Your task to perform on an android device: delete browsing data in the chrome app Image 0: 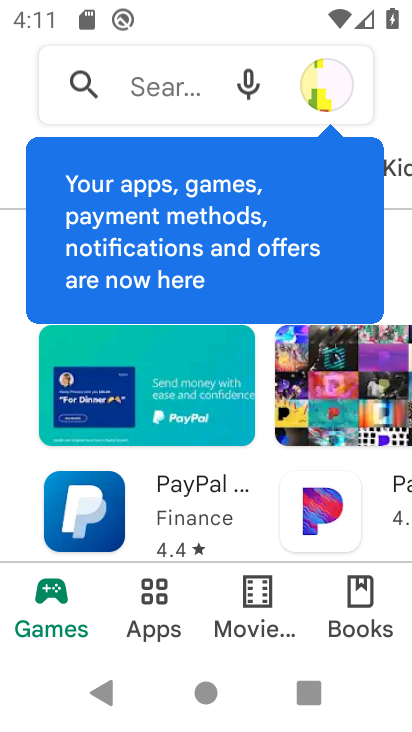
Step 0: press home button
Your task to perform on an android device: delete browsing data in the chrome app Image 1: 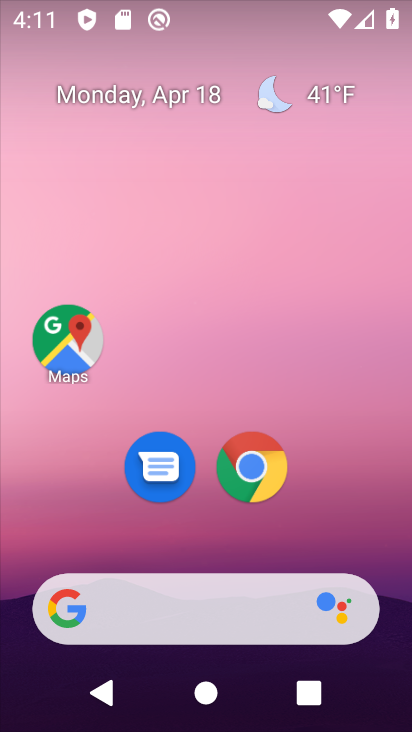
Step 1: click (256, 457)
Your task to perform on an android device: delete browsing data in the chrome app Image 2: 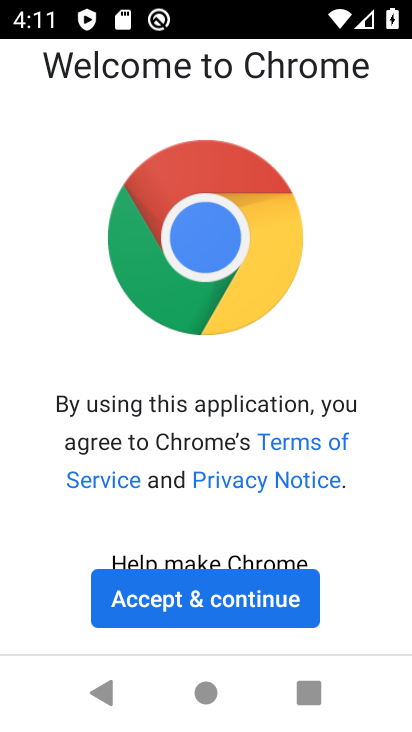
Step 2: click (292, 585)
Your task to perform on an android device: delete browsing data in the chrome app Image 3: 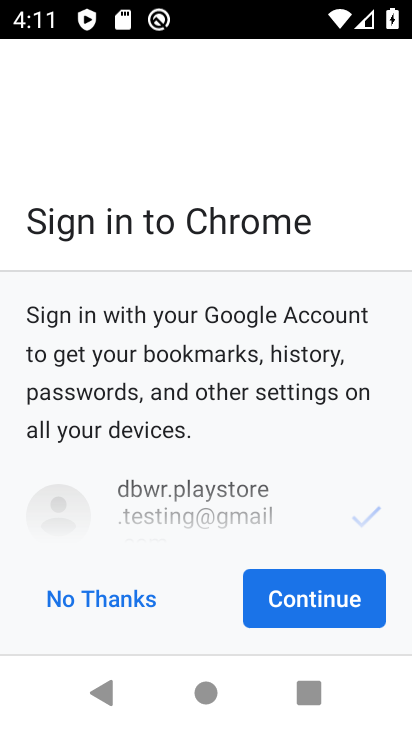
Step 3: click (351, 598)
Your task to perform on an android device: delete browsing data in the chrome app Image 4: 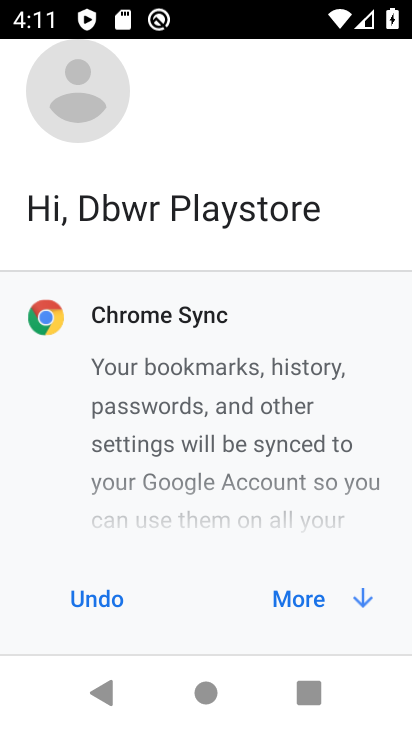
Step 4: click (304, 597)
Your task to perform on an android device: delete browsing data in the chrome app Image 5: 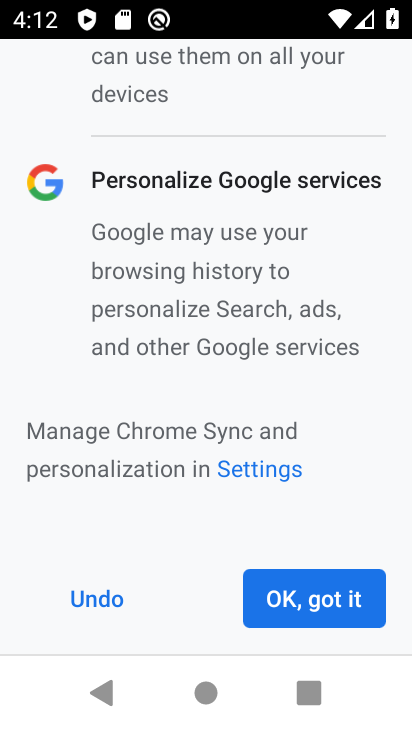
Step 5: click (325, 591)
Your task to perform on an android device: delete browsing data in the chrome app Image 6: 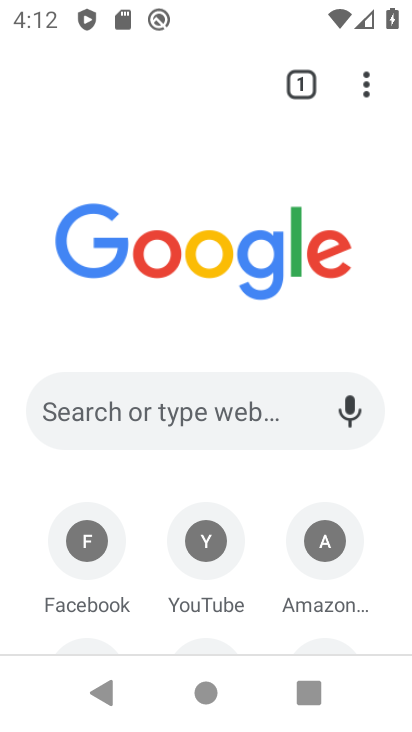
Step 6: click (363, 84)
Your task to perform on an android device: delete browsing data in the chrome app Image 7: 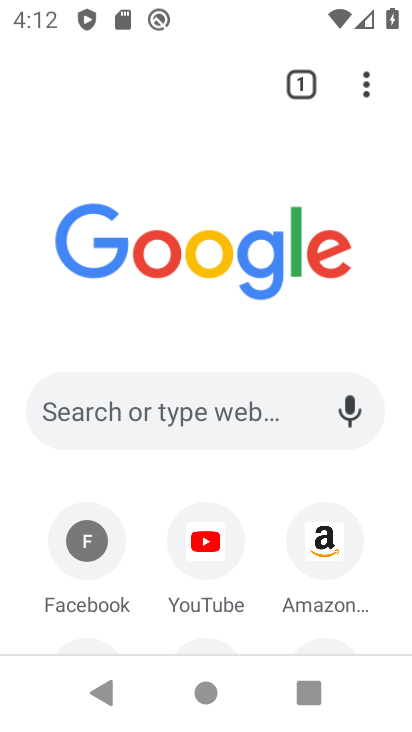
Step 7: click (366, 75)
Your task to perform on an android device: delete browsing data in the chrome app Image 8: 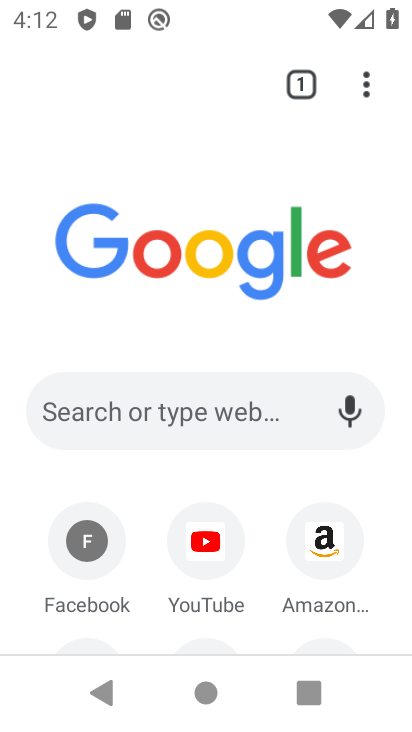
Step 8: click (366, 75)
Your task to perform on an android device: delete browsing data in the chrome app Image 9: 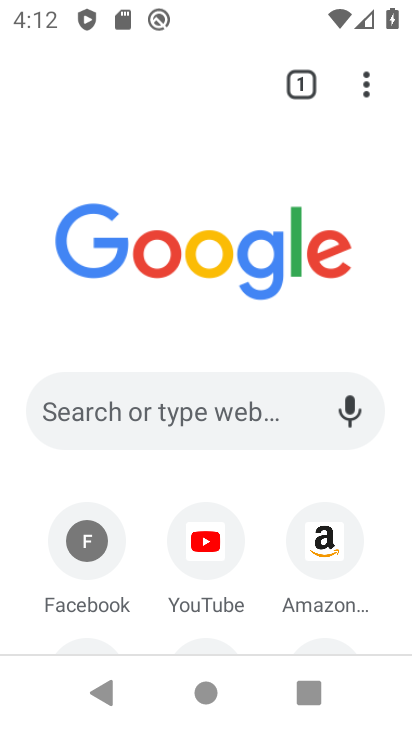
Step 9: click (366, 75)
Your task to perform on an android device: delete browsing data in the chrome app Image 10: 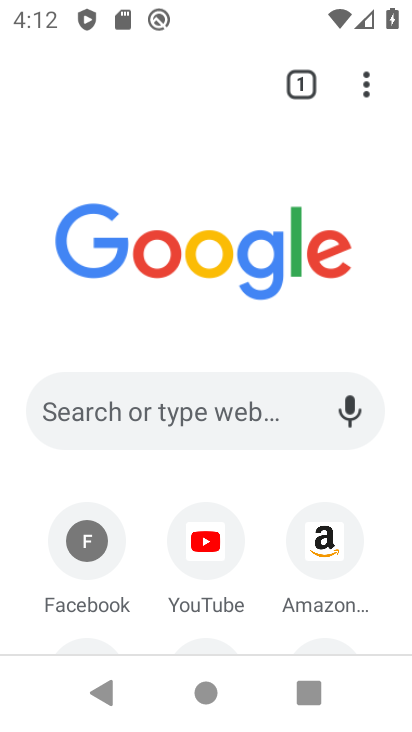
Step 10: click (366, 75)
Your task to perform on an android device: delete browsing data in the chrome app Image 11: 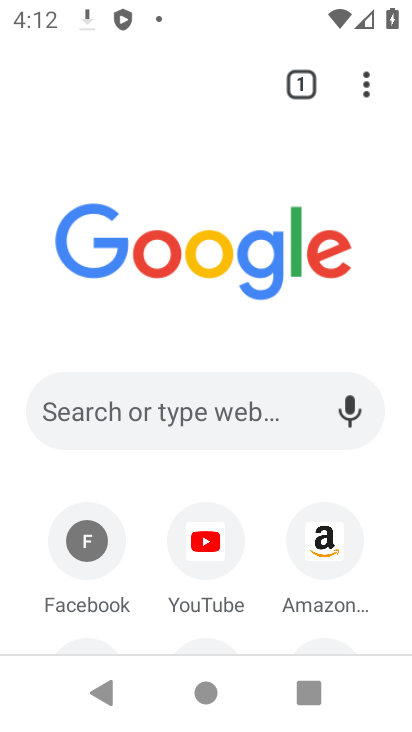
Step 11: click (366, 75)
Your task to perform on an android device: delete browsing data in the chrome app Image 12: 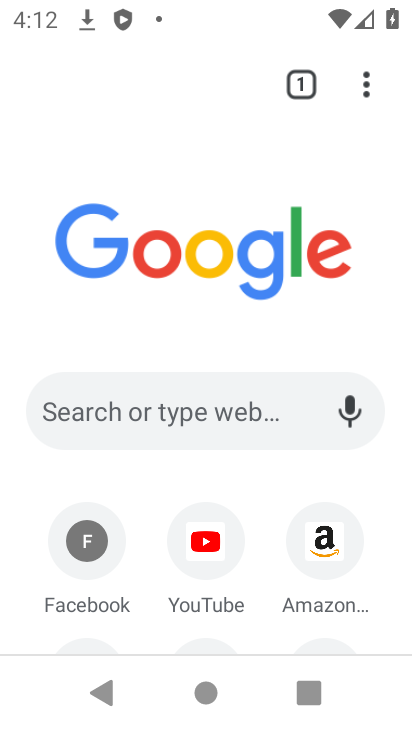
Step 12: click (366, 83)
Your task to perform on an android device: delete browsing data in the chrome app Image 13: 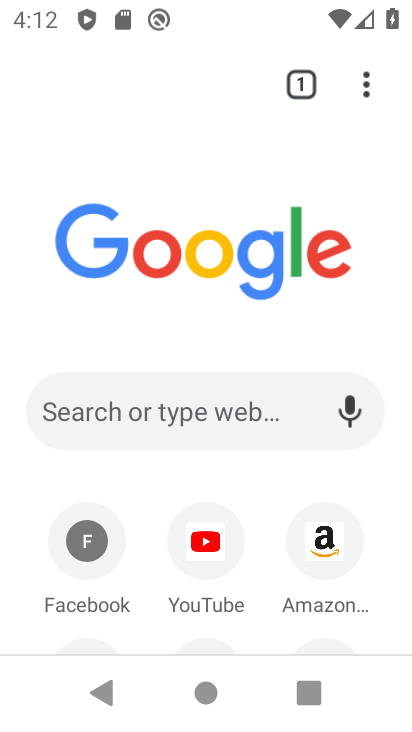
Step 13: click (366, 83)
Your task to perform on an android device: delete browsing data in the chrome app Image 14: 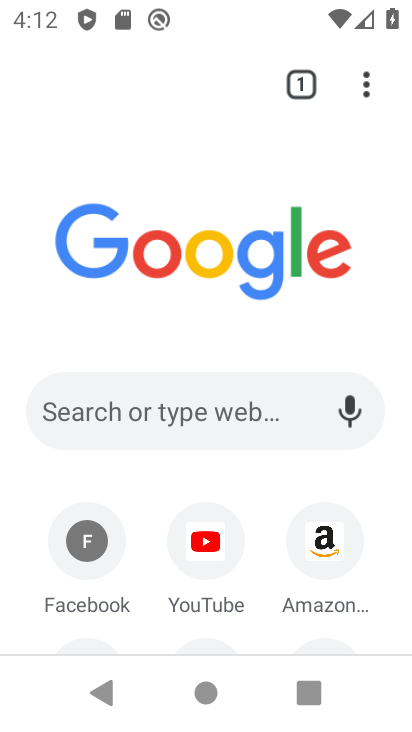
Step 14: click (366, 83)
Your task to perform on an android device: delete browsing data in the chrome app Image 15: 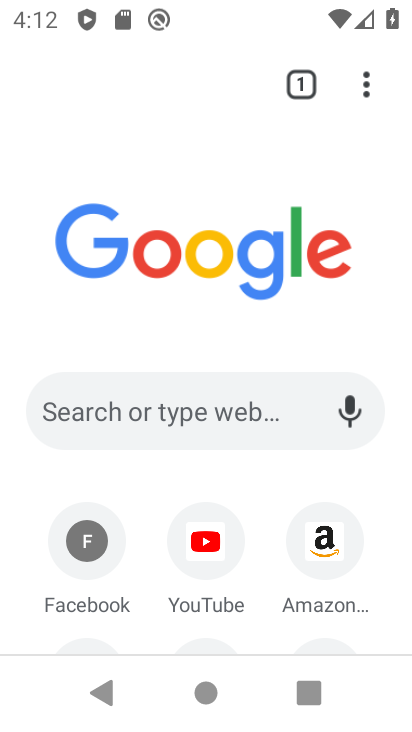
Step 15: click (364, 86)
Your task to perform on an android device: delete browsing data in the chrome app Image 16: 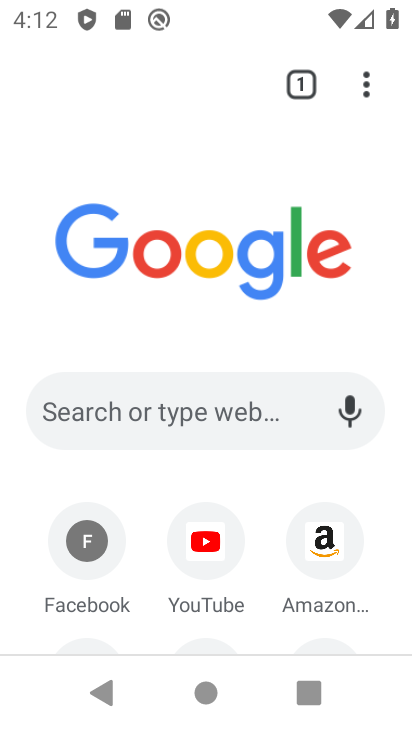
Step 16: click (364, 86)
Your task to perform on an android device: delete browsing data in the chrome app Image 17: 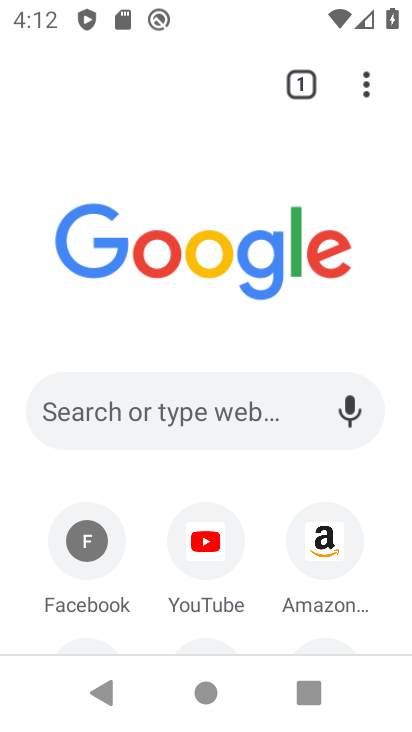
Step 17: click (367, 89)
Your task to perform on an android device: delete browsing data in the chrome app Image 18: 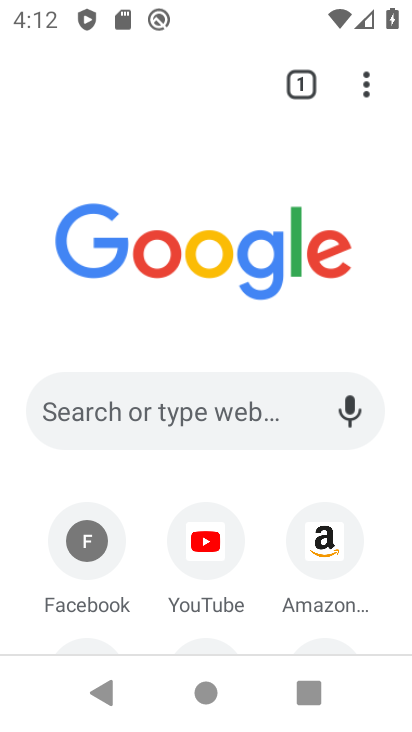
Step 18: click (367, 89)
Your task to perform on an android device: delete browsing data in the chrome app Image 19: 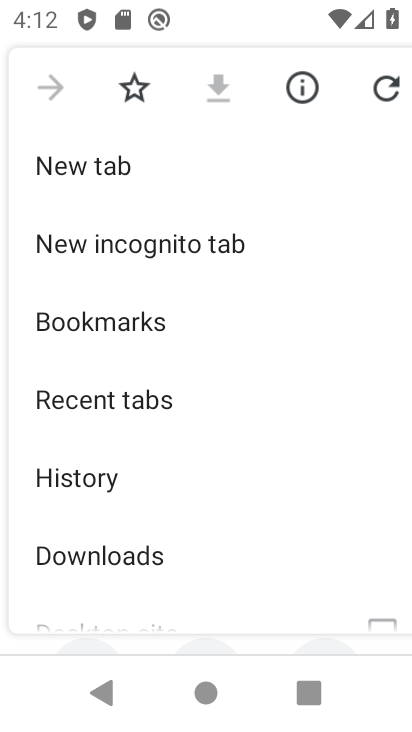
Step 19: click (105, 482)
Your task to perform on an android device: delete browsing data in the chrome app Image 20: 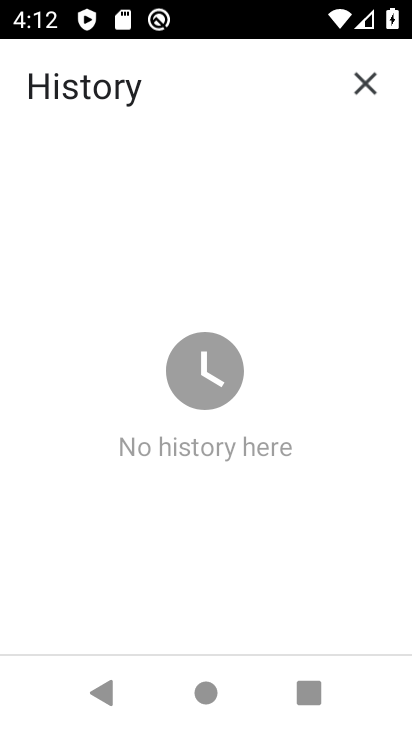
Step 20: task complete